Your task to perform on an android device: Search for logitech g933 on costco, select the first entry, add it to the cart, then select checkout. Image 0: 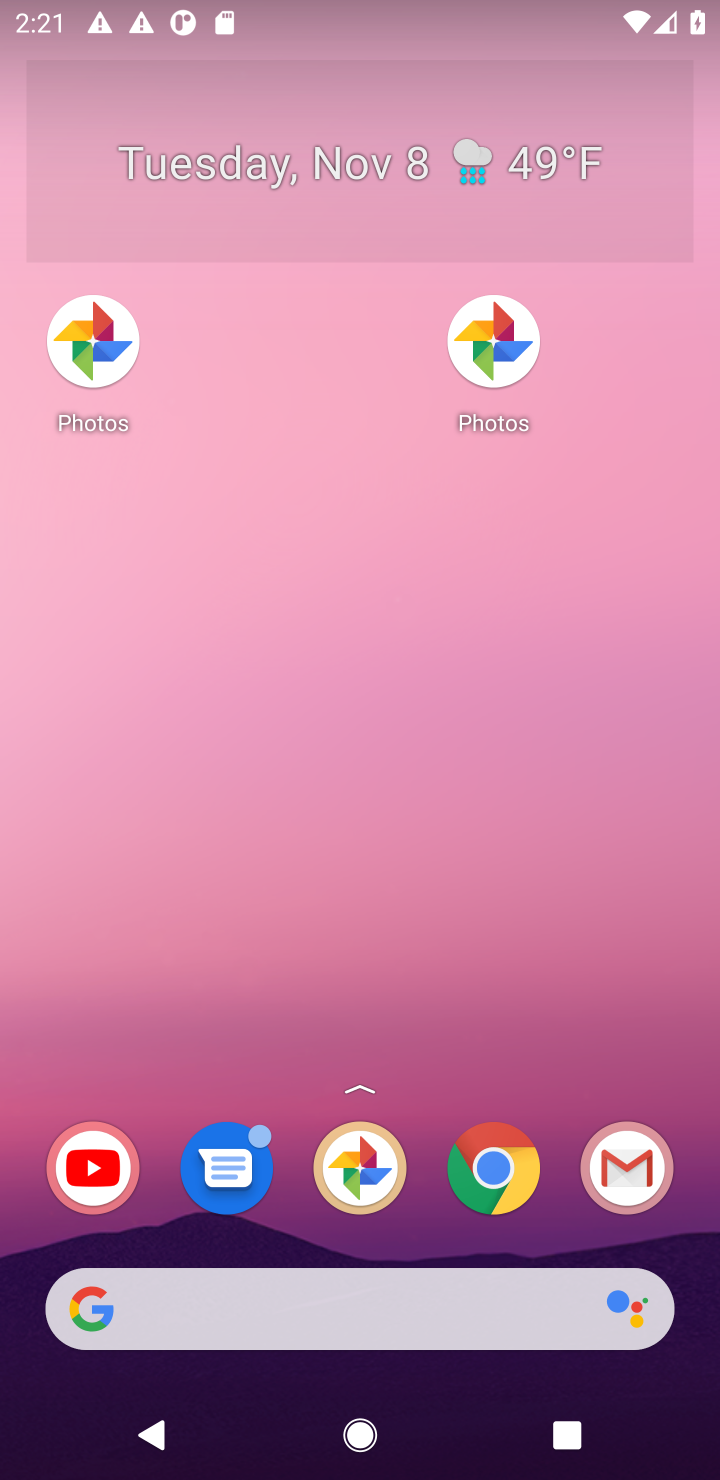
Step 0: drag from (239, 1419) to (266, 23)
Your task to perform on an android device: Search for logitech g933 on costco, select the first entry, add it to the cart, then select checkout. Image 1: 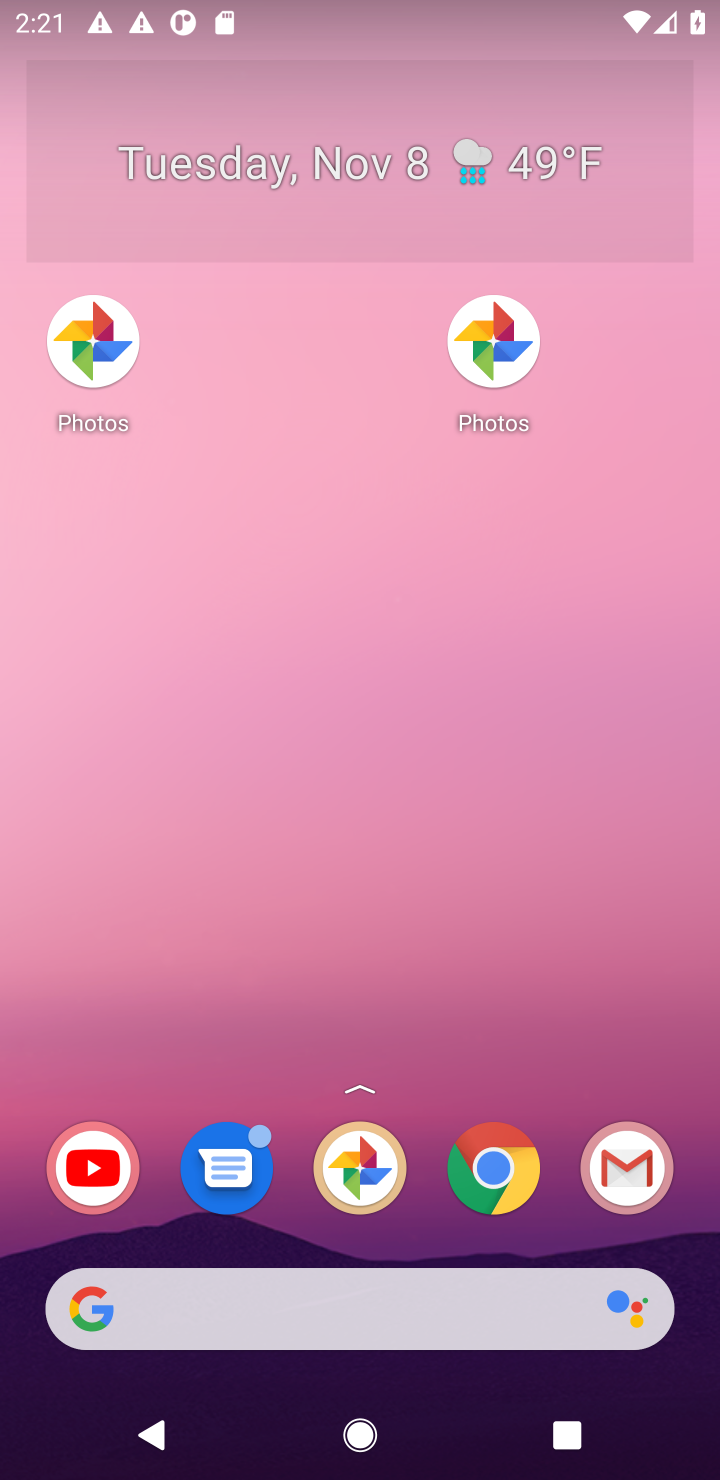
Step 1: drag from (394, 1282) to (471, 418)
Your task to perform on an android device: Search for logitech g933 on costco, select the first entry, add it to the cart, then select checkout. Image 2: 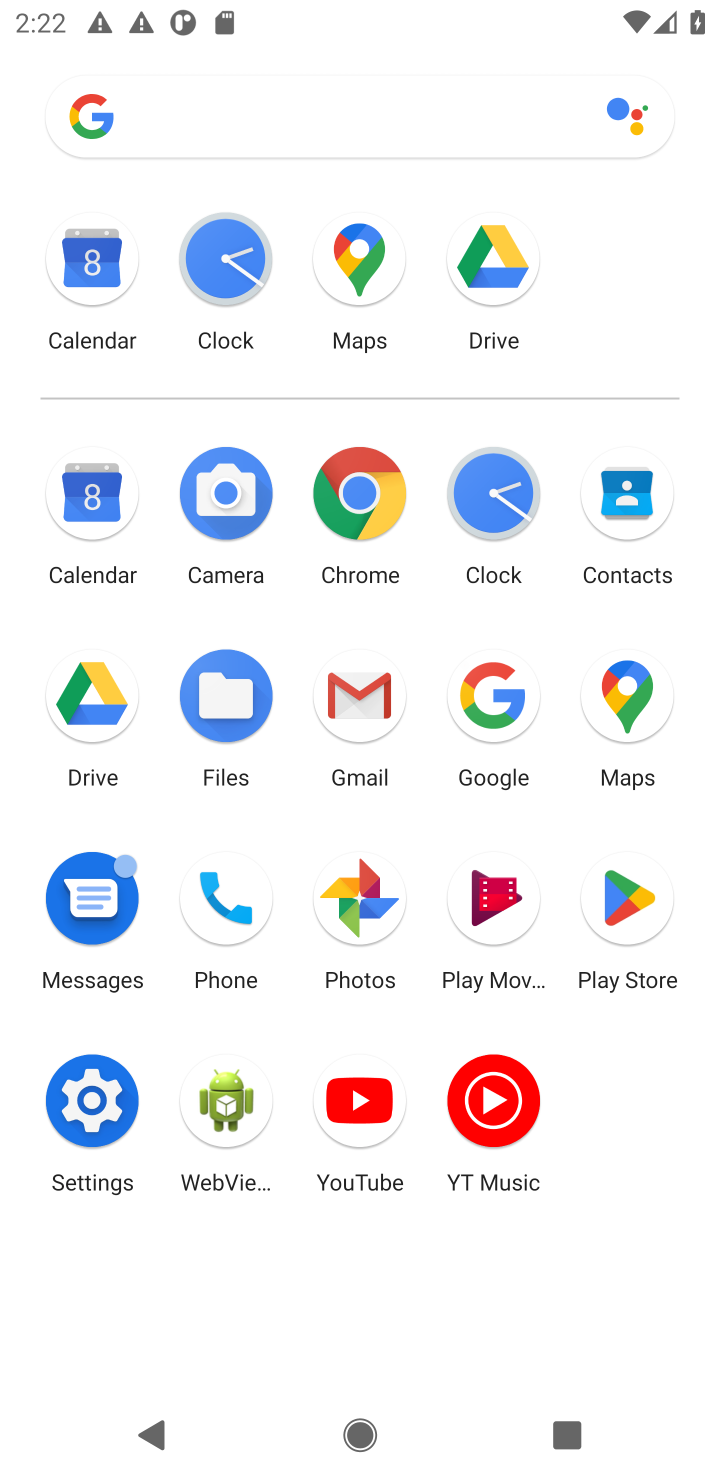
Step 2: click (381, 484)
Your task to perform on an android device: Search for logitech g933 on costco, select the first entry, add it to the cart, then select checkout. Image 3: 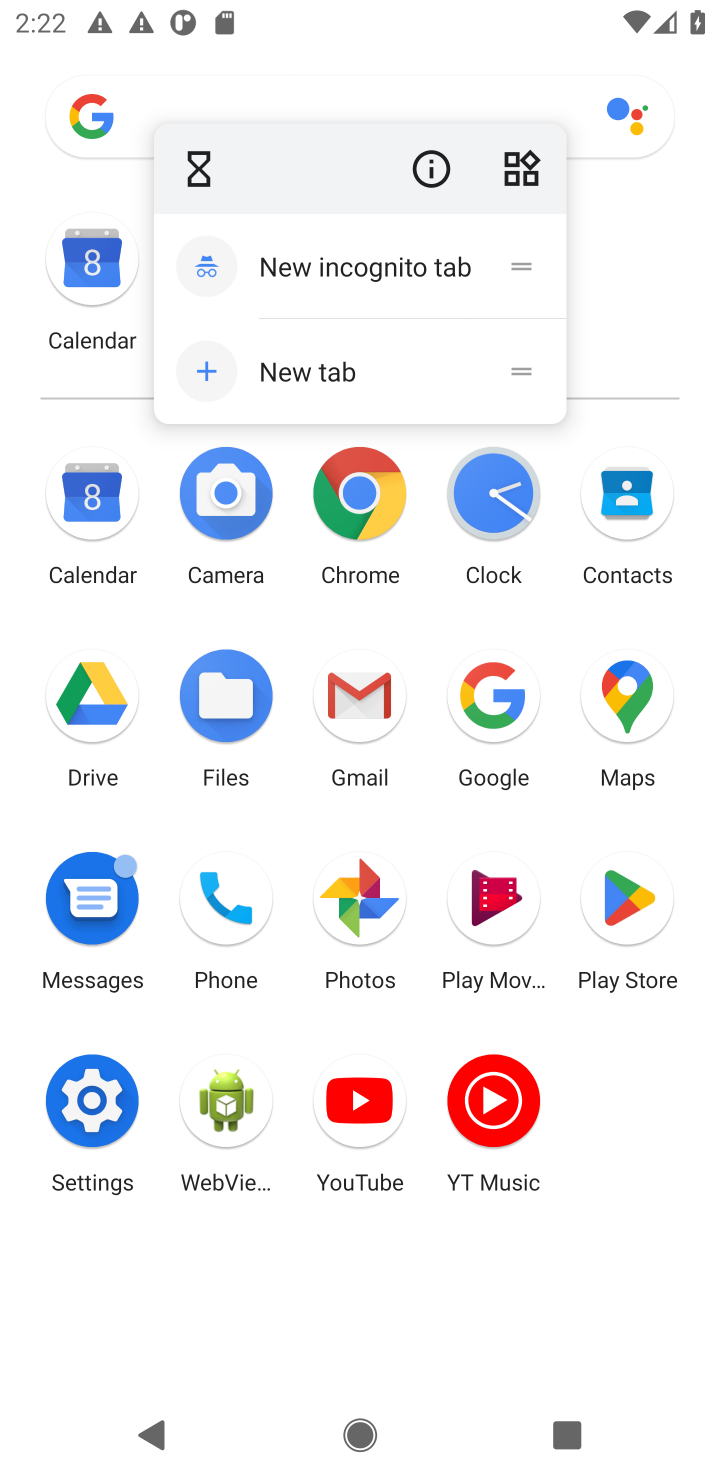
Step 3: click (381, 484)
Your task to perform on an android device: Search for logitech g933 on costco, select the first entry, add it to the cart, then select checkout. Image 4: 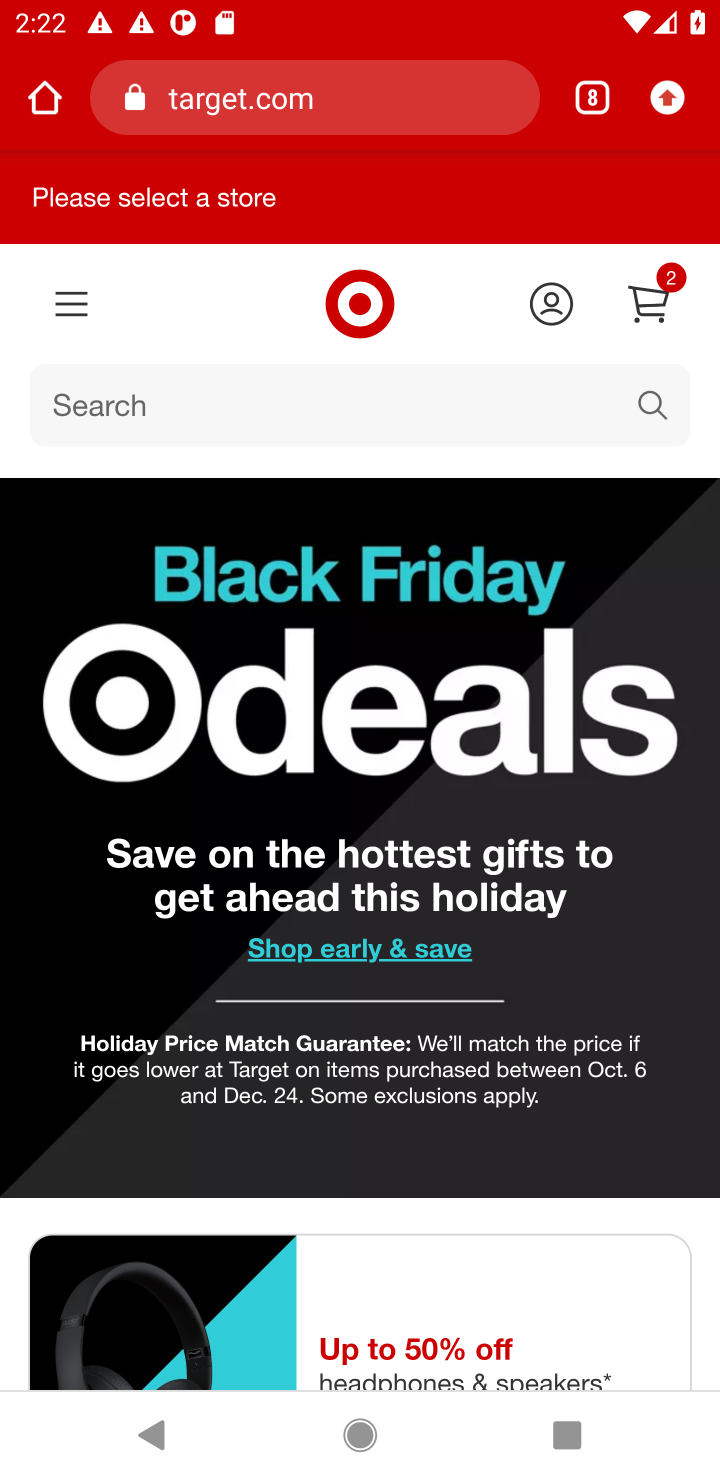
Step 4: click (250, 93)
Your task to perform on an android device: Search for logitech g933 on costco, select the first entry, add it to the cart, then select checkout. Image 5: 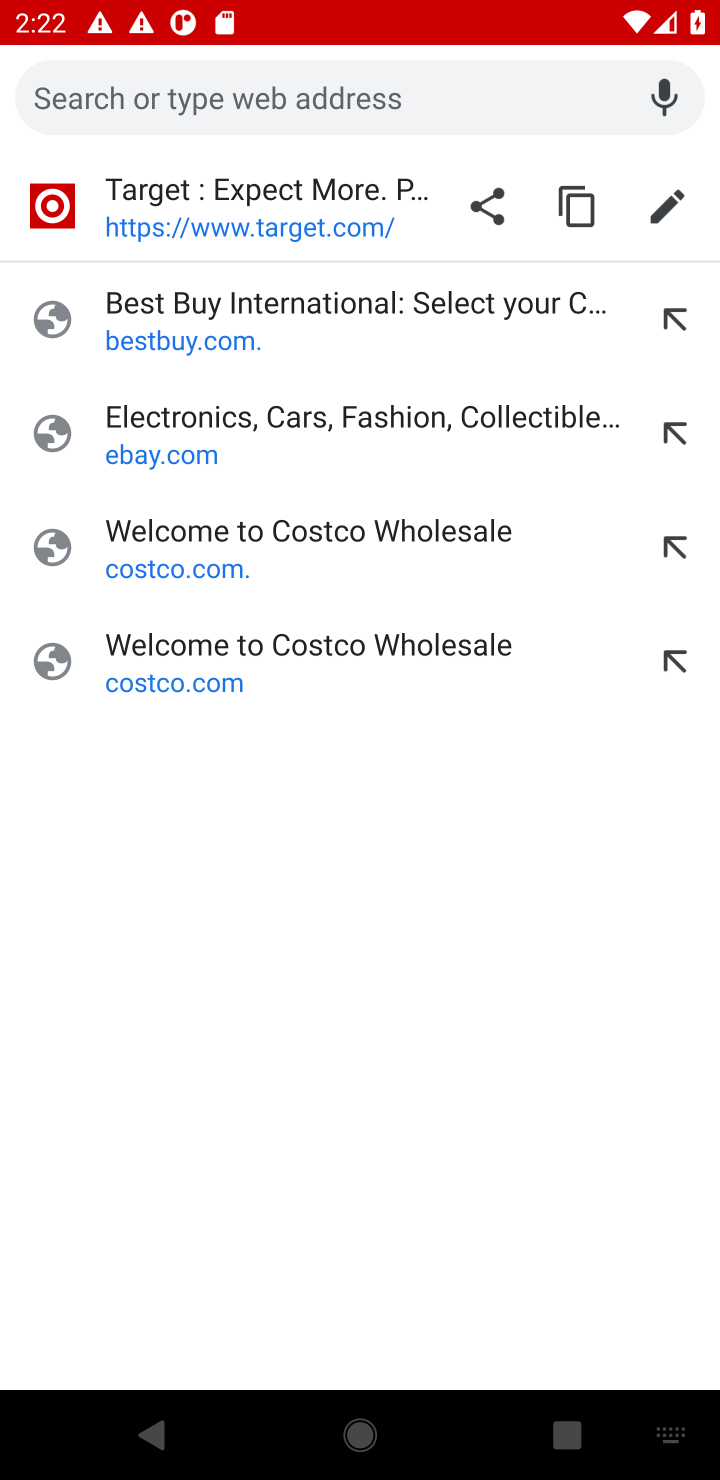
Step 5: type "costco"
Your task to perform on an android device: Search for logitech g933 on costco, select the first entry, add it to the cart, then select checkout. Image 6: 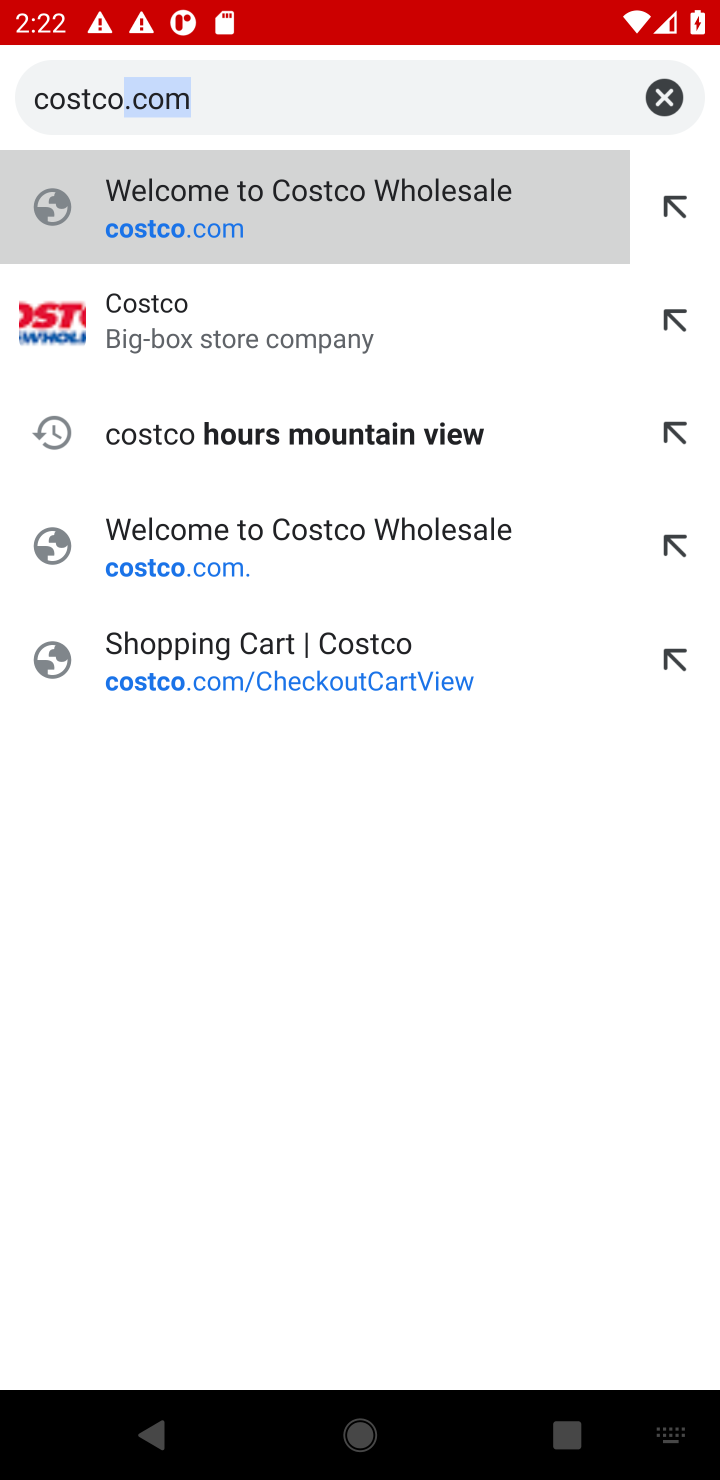
Step 6: press enter
Your task to perform on an android device: Search for logitech g933 on costco, select the first entry, add it to the cart, then select checkout. Image 7: 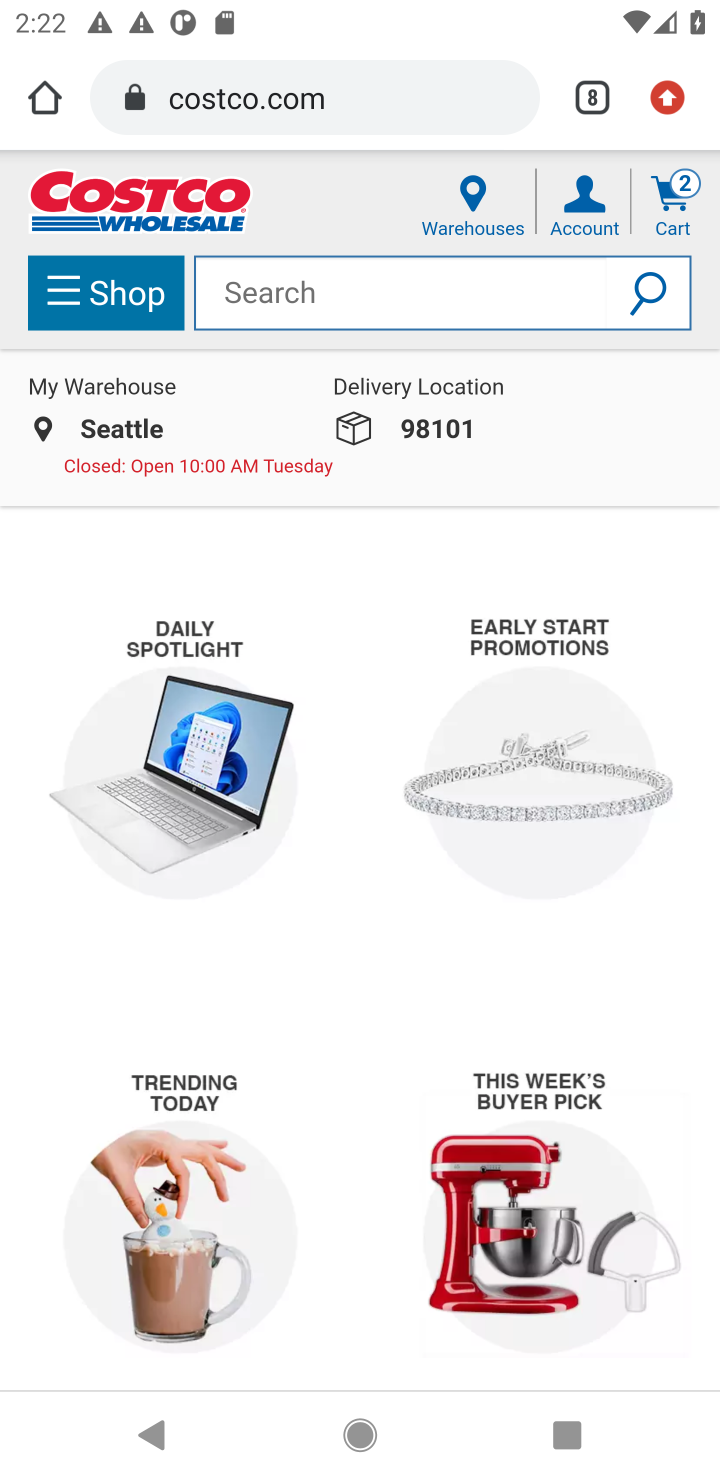
Step 7: click (379, 276)
Your task to perform on an android device: Search for logitech g933 on costco, select the first entry, add it to the cart, then select checkout. Image 8: 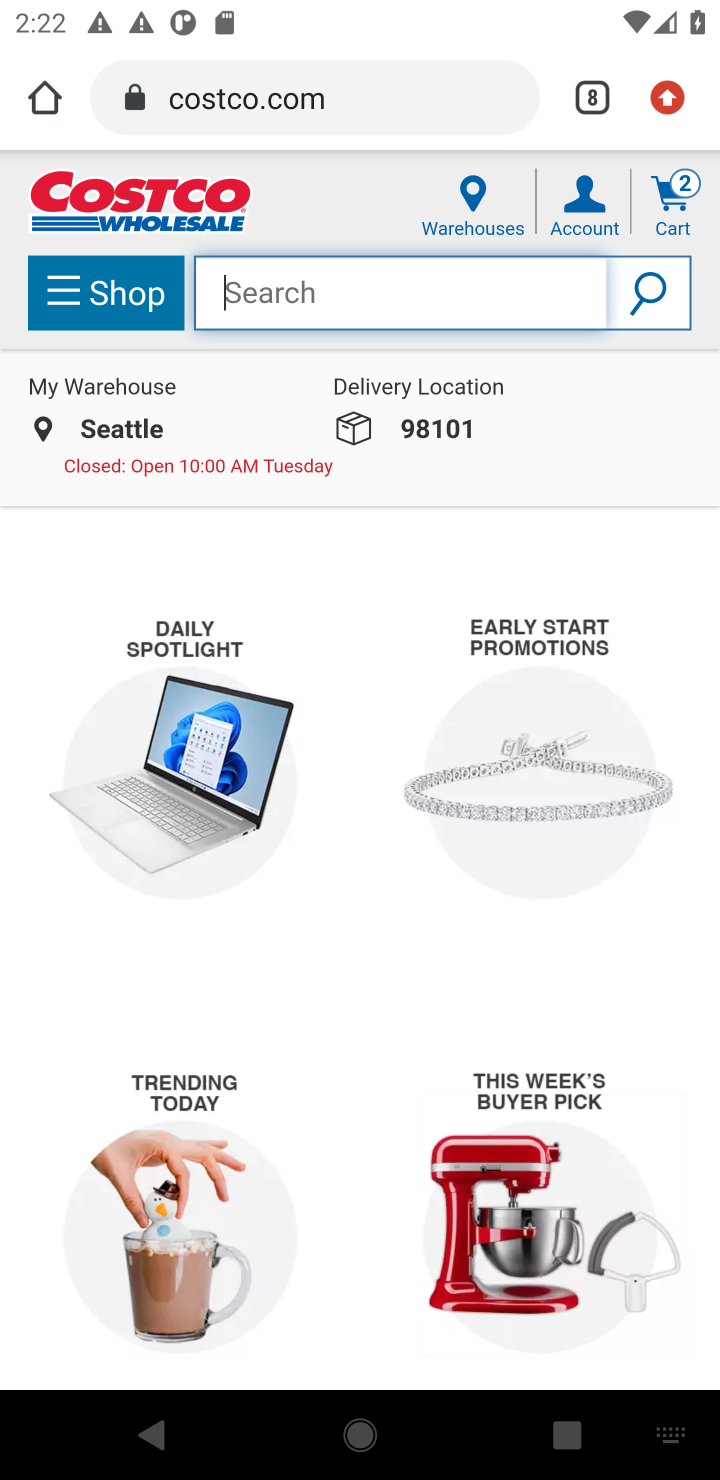
Step 8: type " logitech g933"
Your task to perform on an android device: Search for logitech g933 on costco, select the first entry, add it to the cart, then select checkout. Image 9: 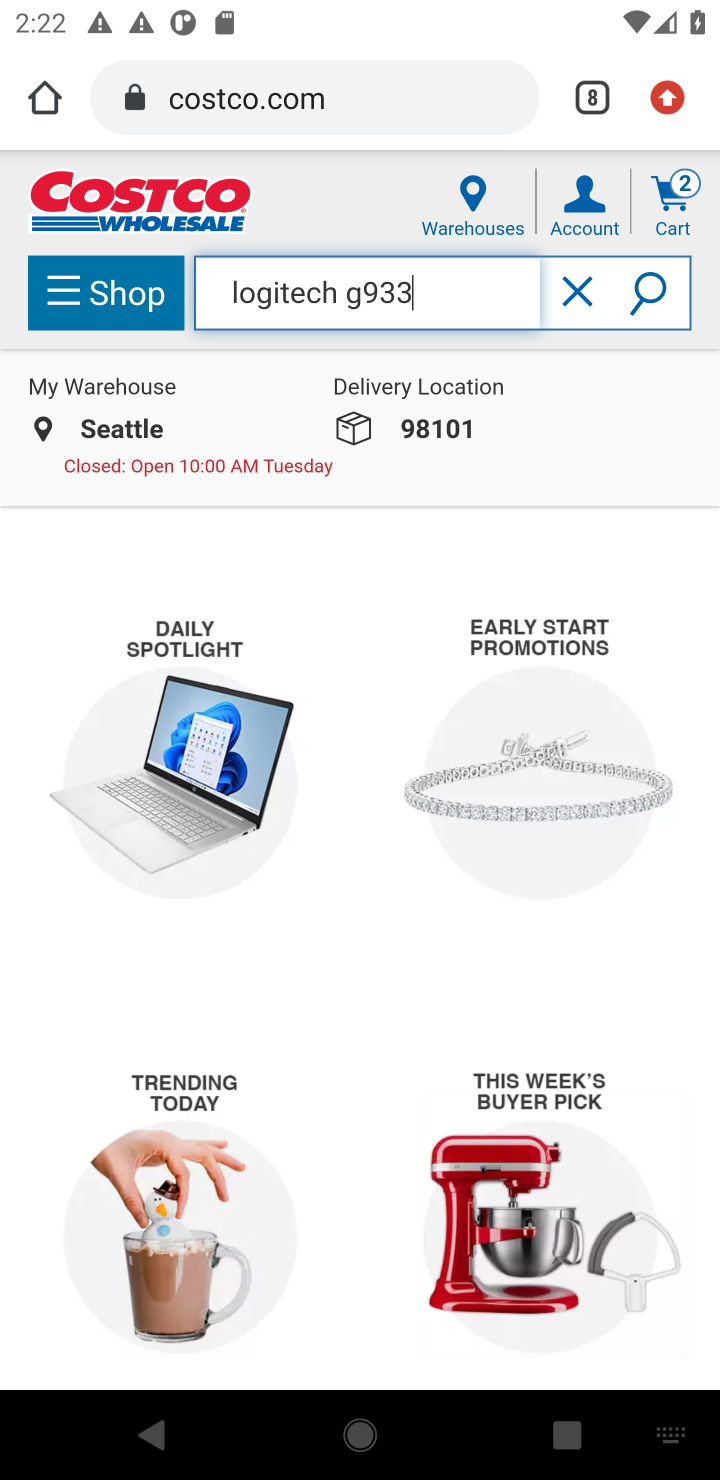
Step 9: press enter
Your task to perform on an android device: Search for logitech g933 on costco, select the first entry, add it to the cart, then select checkout. Image 10: 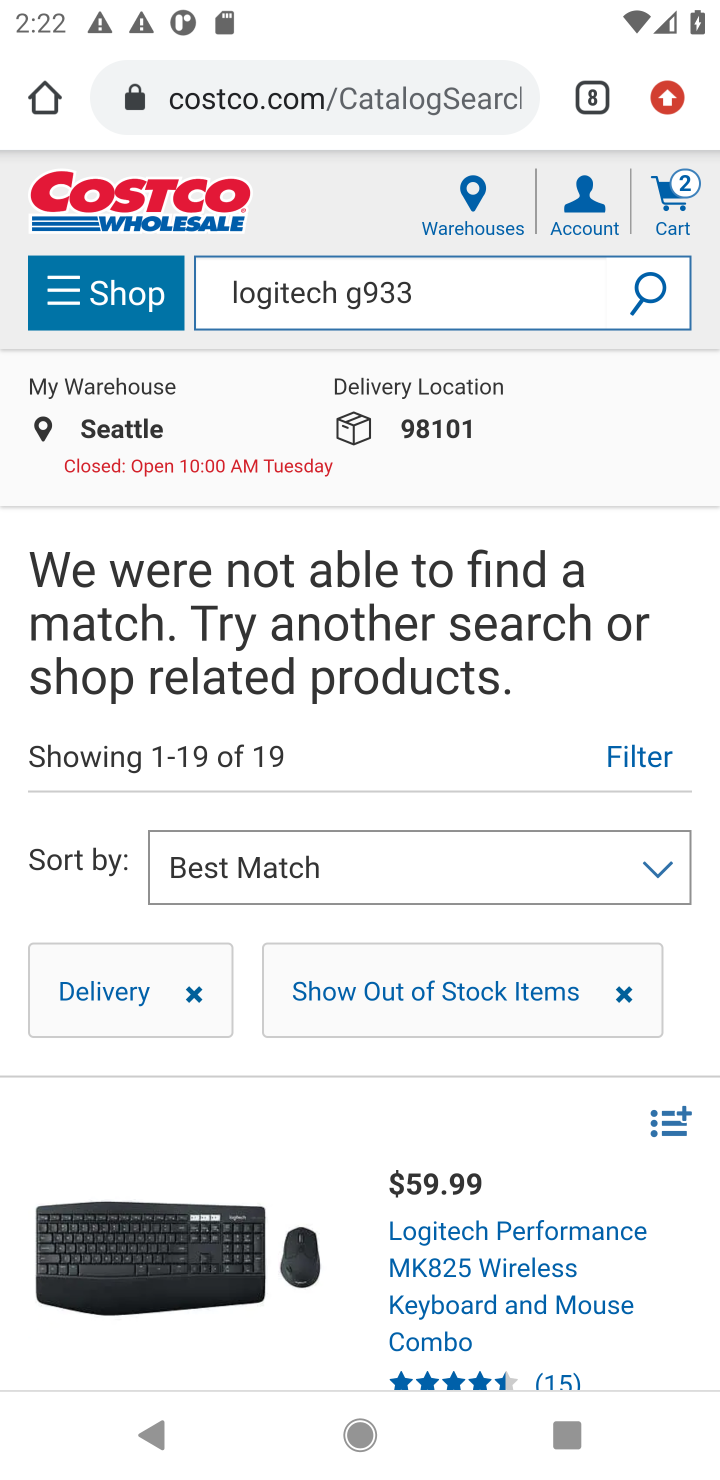
Step 10: drag from (354, 999) to (393, 482)
Your task to perform on an android device: Search for logitech g933 on costco, select the first entry, add it to the cart, then select checkout. Image 11: 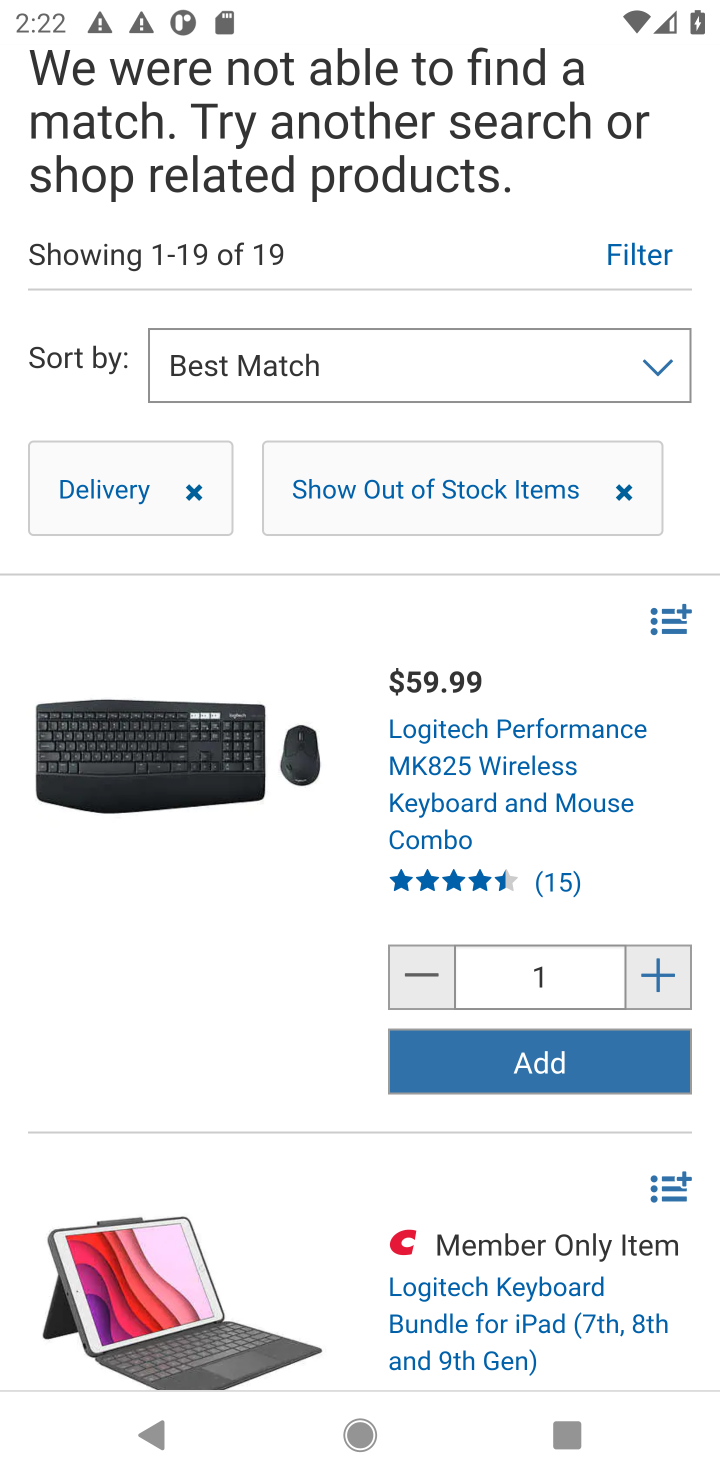
Step 11: click (543, 1056)
Your task to perform on an android device: Search for logitech g933 on costco, select the first entry, add it to the cart, then select checkout. Image 12: 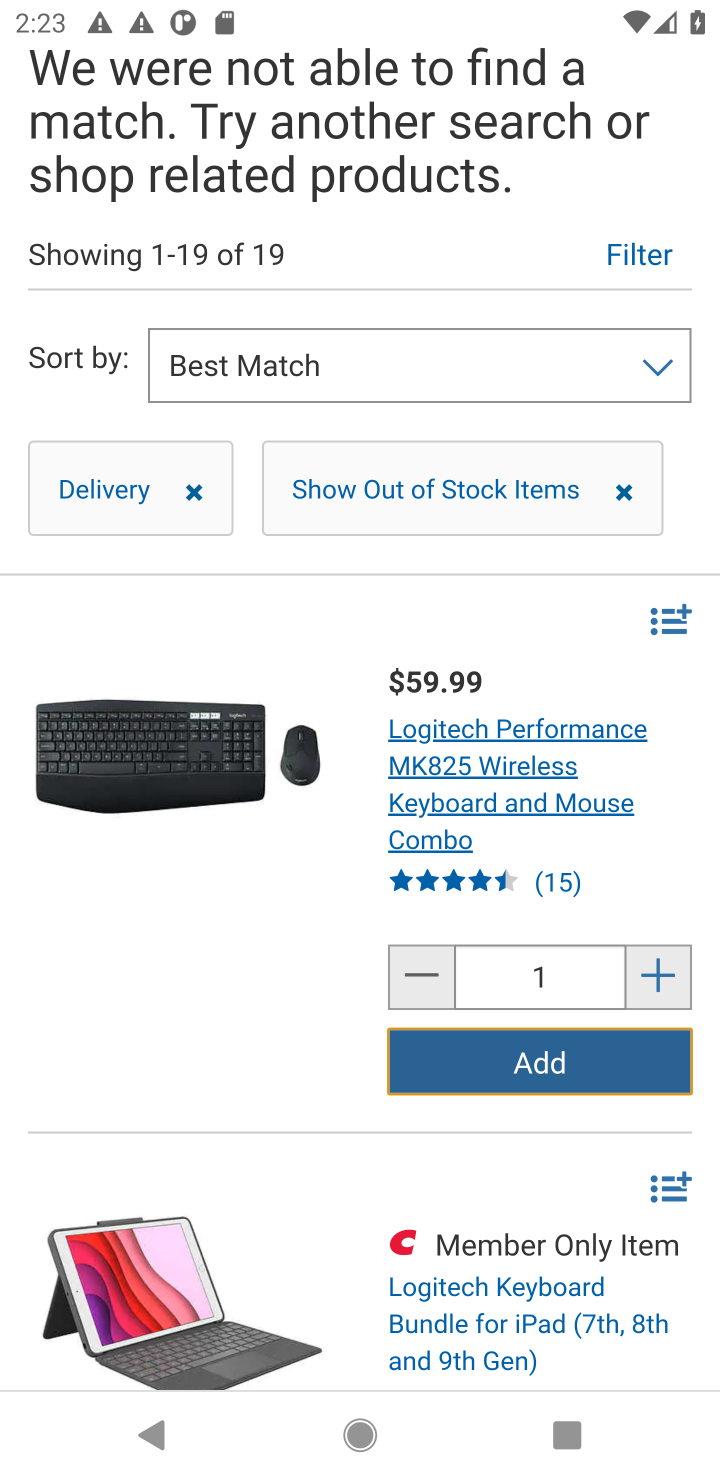
Step 12: click (546, 1069)
Your task to perform on an android device: Search for logitech g933 on costco, select the first entry, add it to the cart, then select checkout. Image 13: 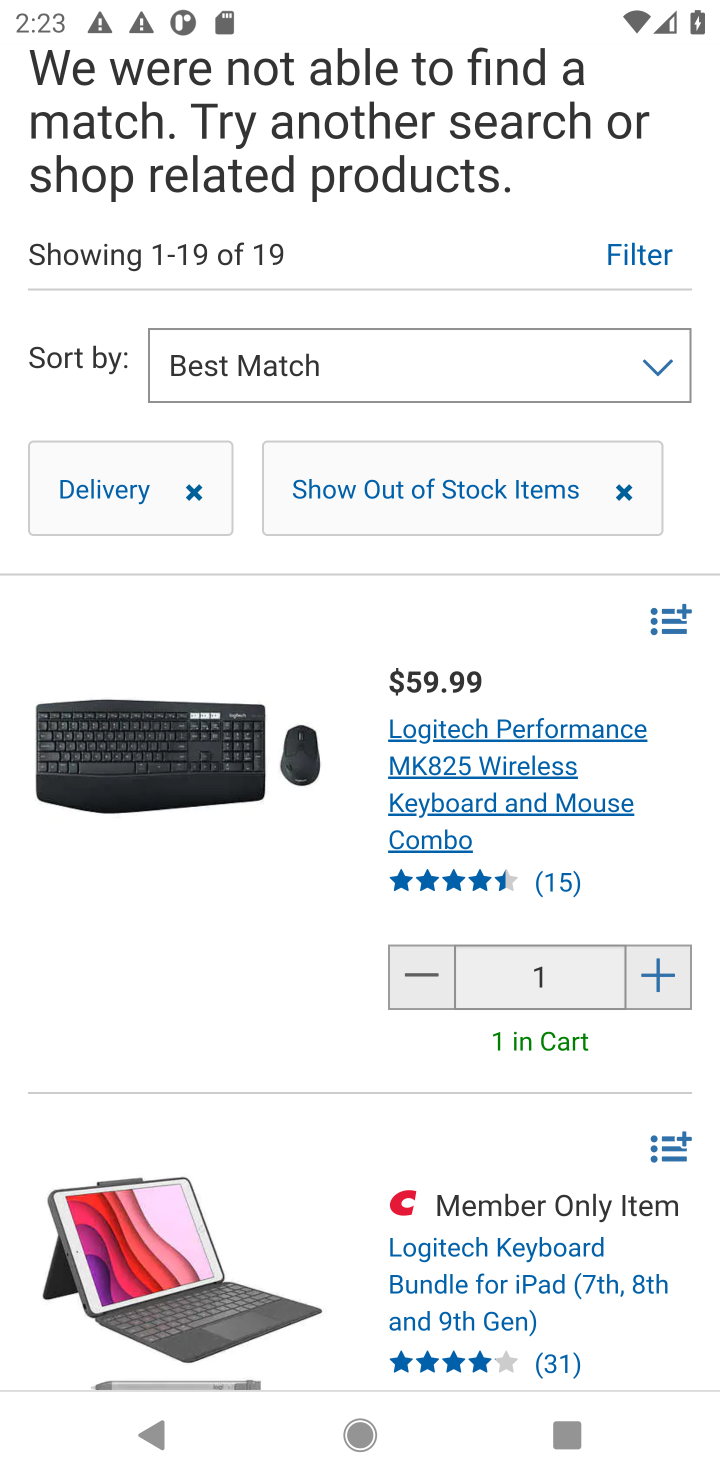
Step 13: drag from (376, 809) to (231, 1128)
Your task to perform on an android device: Search for logitech g933 on costco, select the first entry, add it to the cart, then select checkout. Image 14: 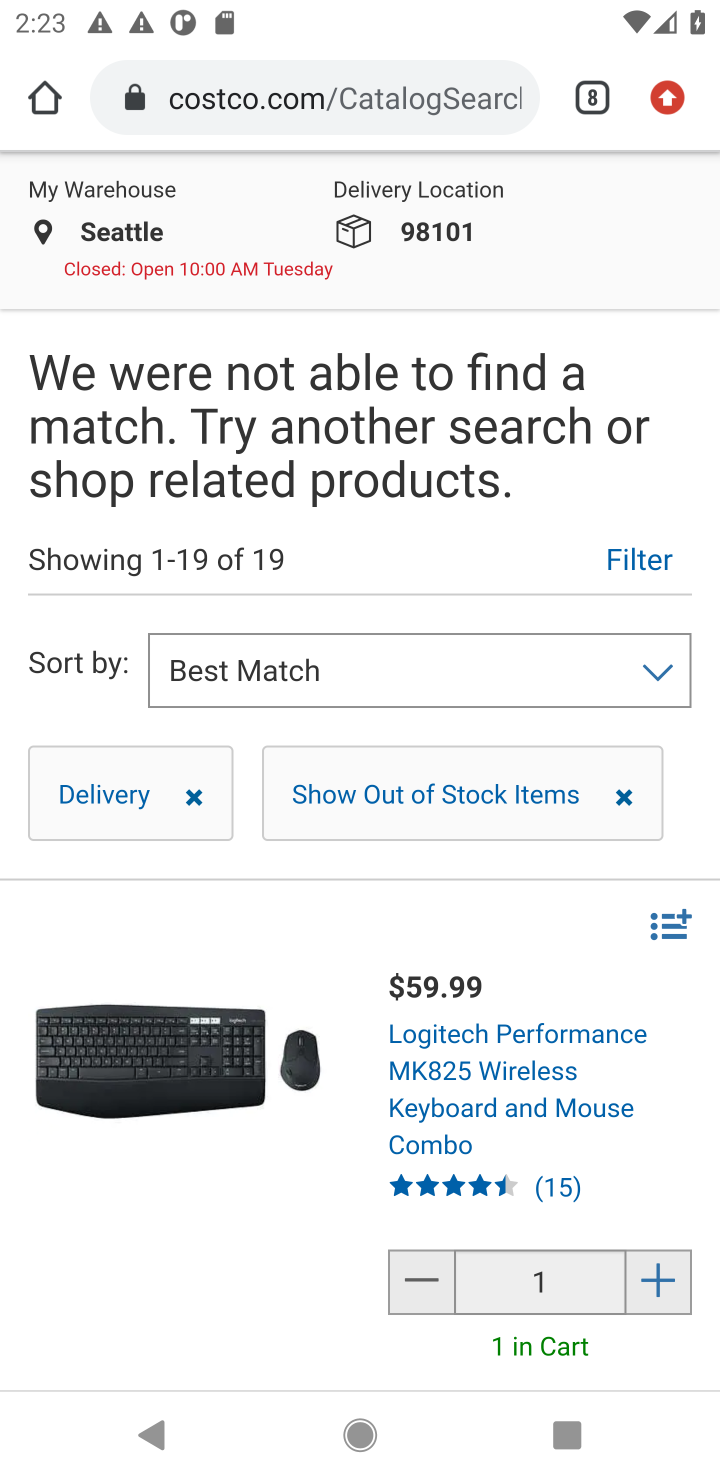
Step 14: drag from (363, 796) to (264, 1180)
Your task to perform on an android device: Search for logitech g933 on costco, select the first entry, add it to the cart, then select checkout. Image 15: 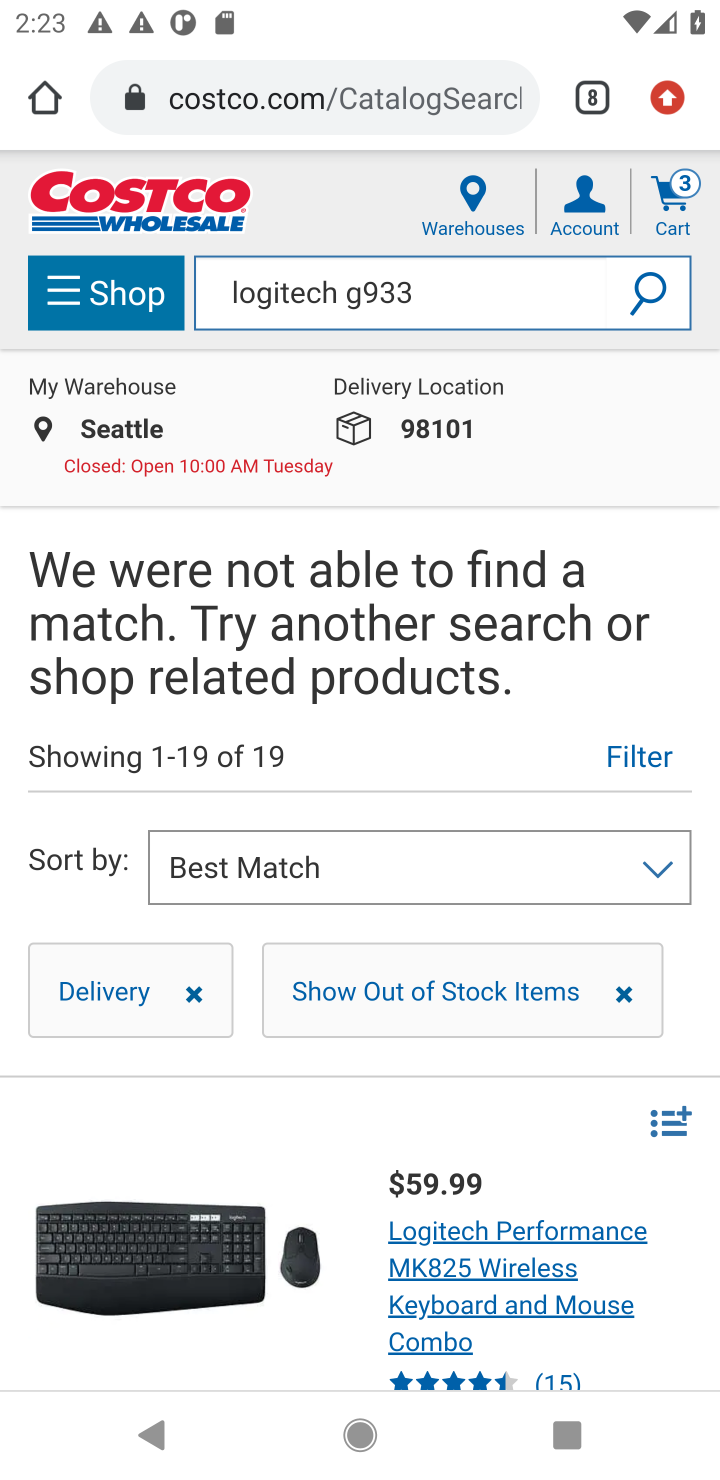
Step 15: click (669, 191)
Your task to perform on an android device: Search for logitech g933 on costco, select the first entry, add it to the cart, then select checkout. Image 16: 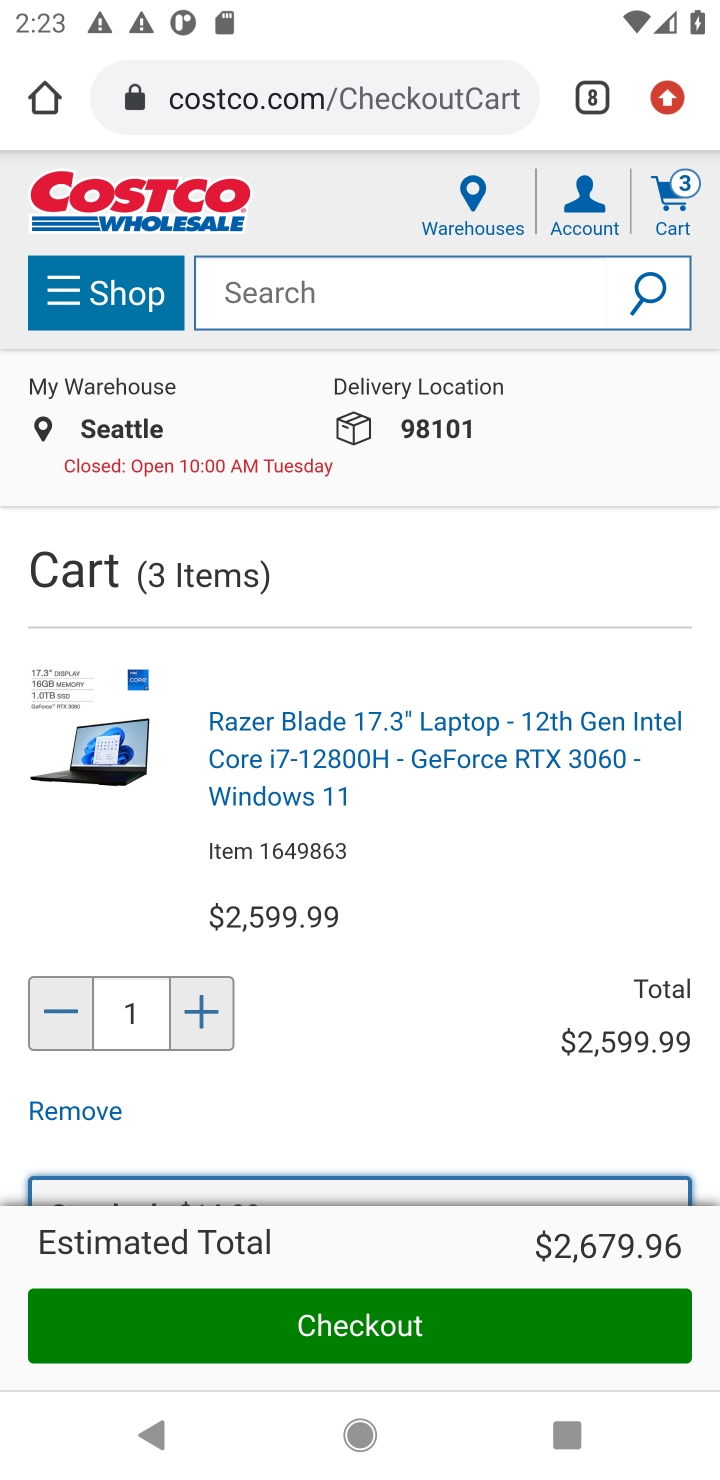
Step 16: click (312, 1338)
Your task to perform on an android device: Search for logitech g933 on costco, select the first entry, add it to the cart, then select checkout. Image 17: 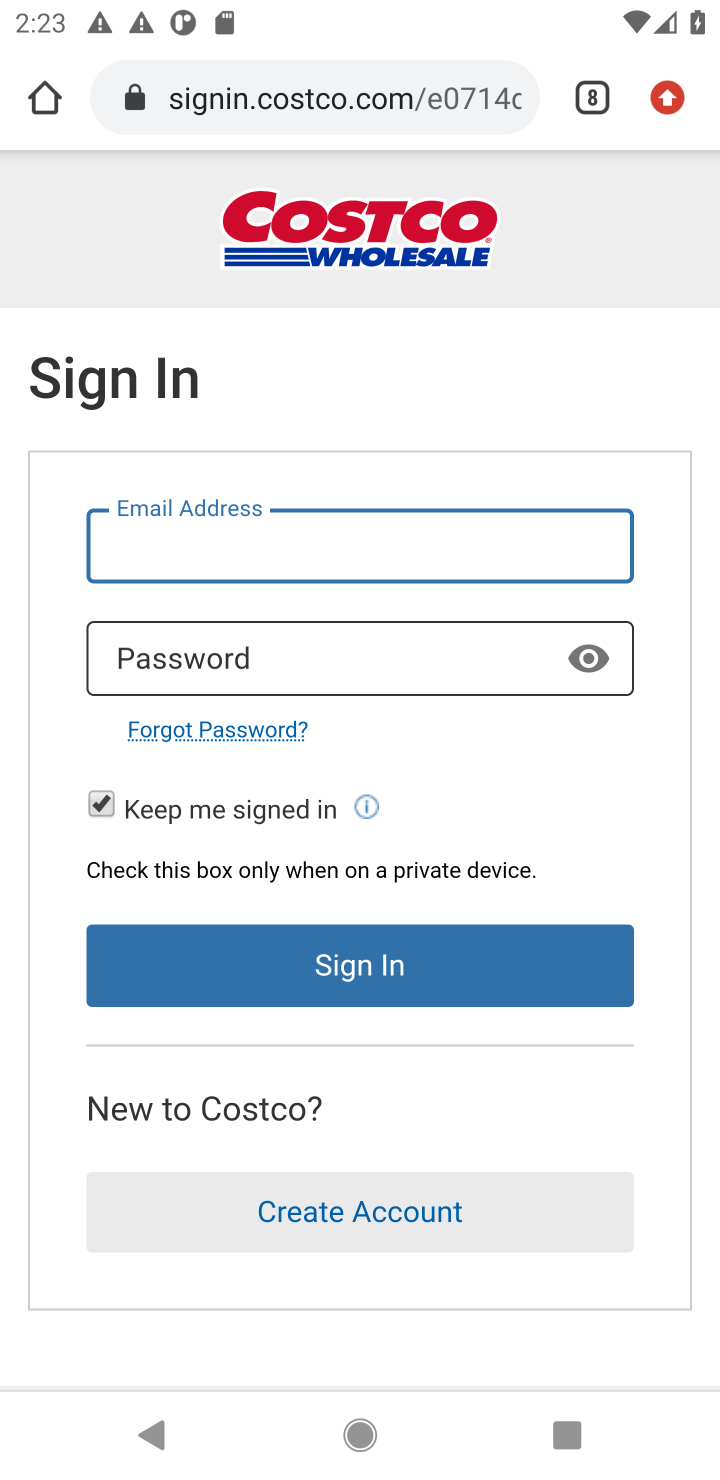
Step 17: task complete